Your task to perform on an android device: Is it going to rain tomorrow? Image 0: 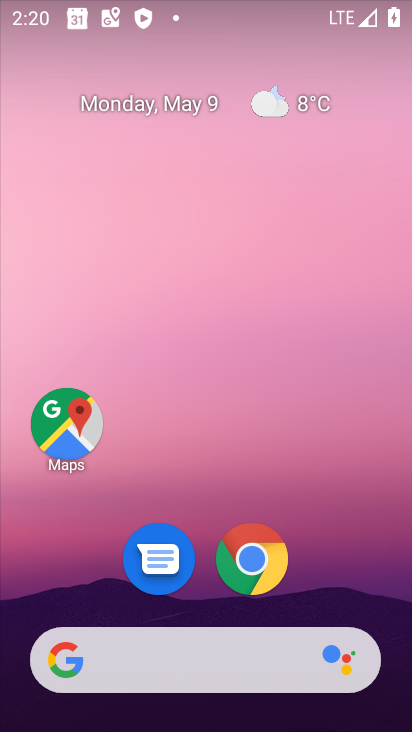
Step 0: click (206, 658)
Your task to perform on an android device: Is it going to rain tomorrow? Image 1: 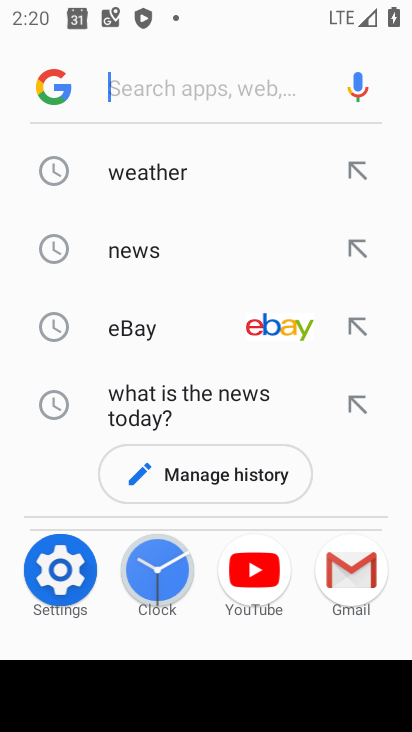
Step 1: click (137, 171)
Your task to perform on an android device: Is it going to rain tomorrow? Image 2: 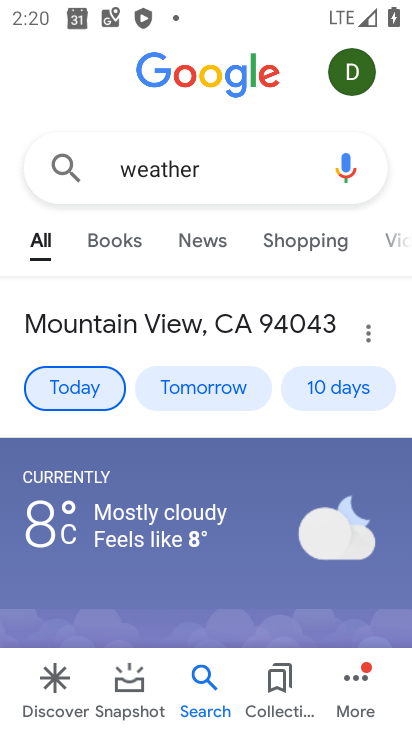
Step 2: click (229, 390)
Your task to perform on an android device: Is it going to rain tomorrow? Image 3: 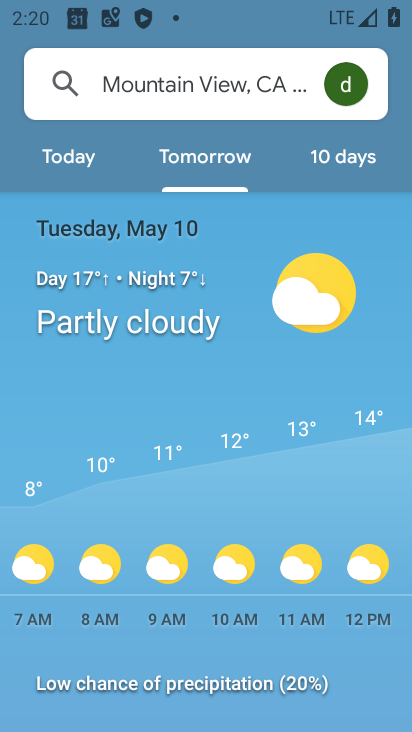
Step 3: task complete